Your task to perform on an android device: Search for "panasonic triple a" on amazon, select the first entry, add it to the cart, then select checkout. Image 0: 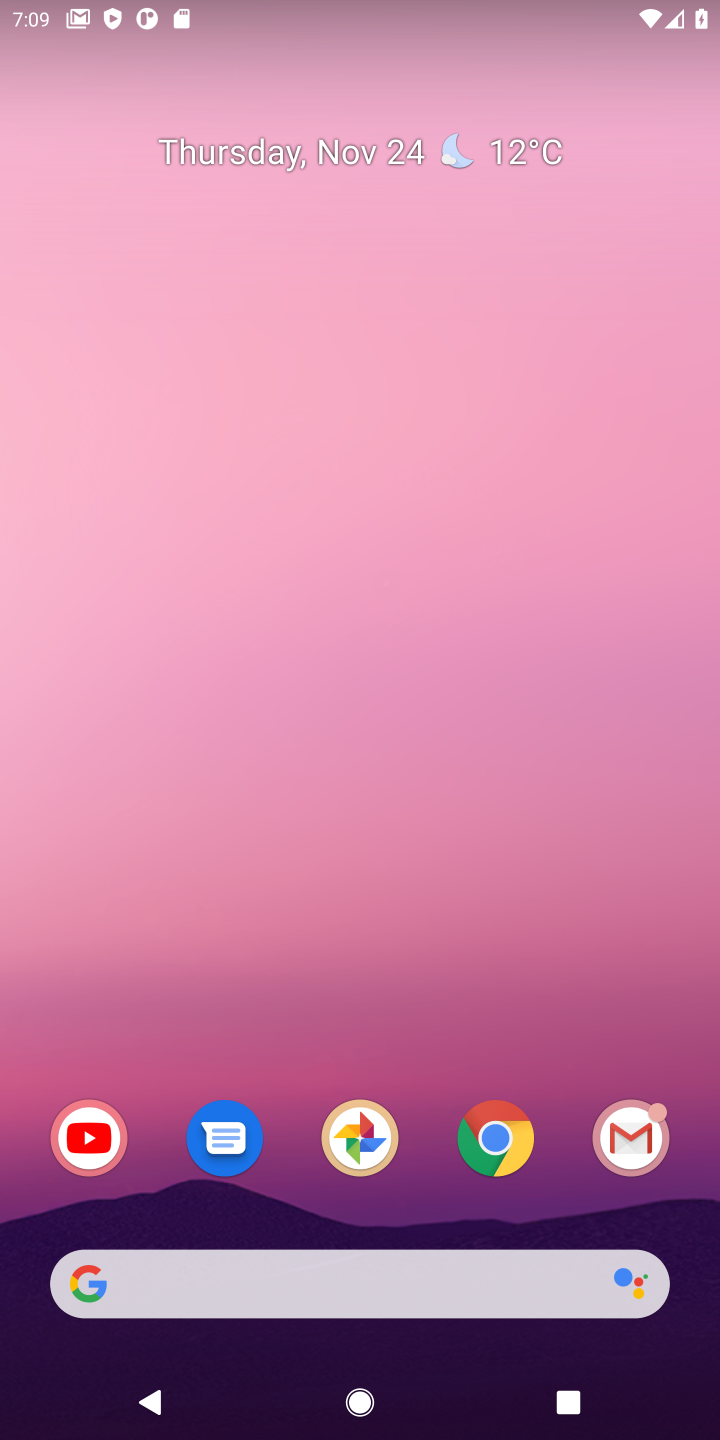
Step 0: click (500, 1118)
Your task to perform on an android device: Search for "panasonic triple a" on amazon, select the first entry, add it to the cart, then select checkout. Image 1: 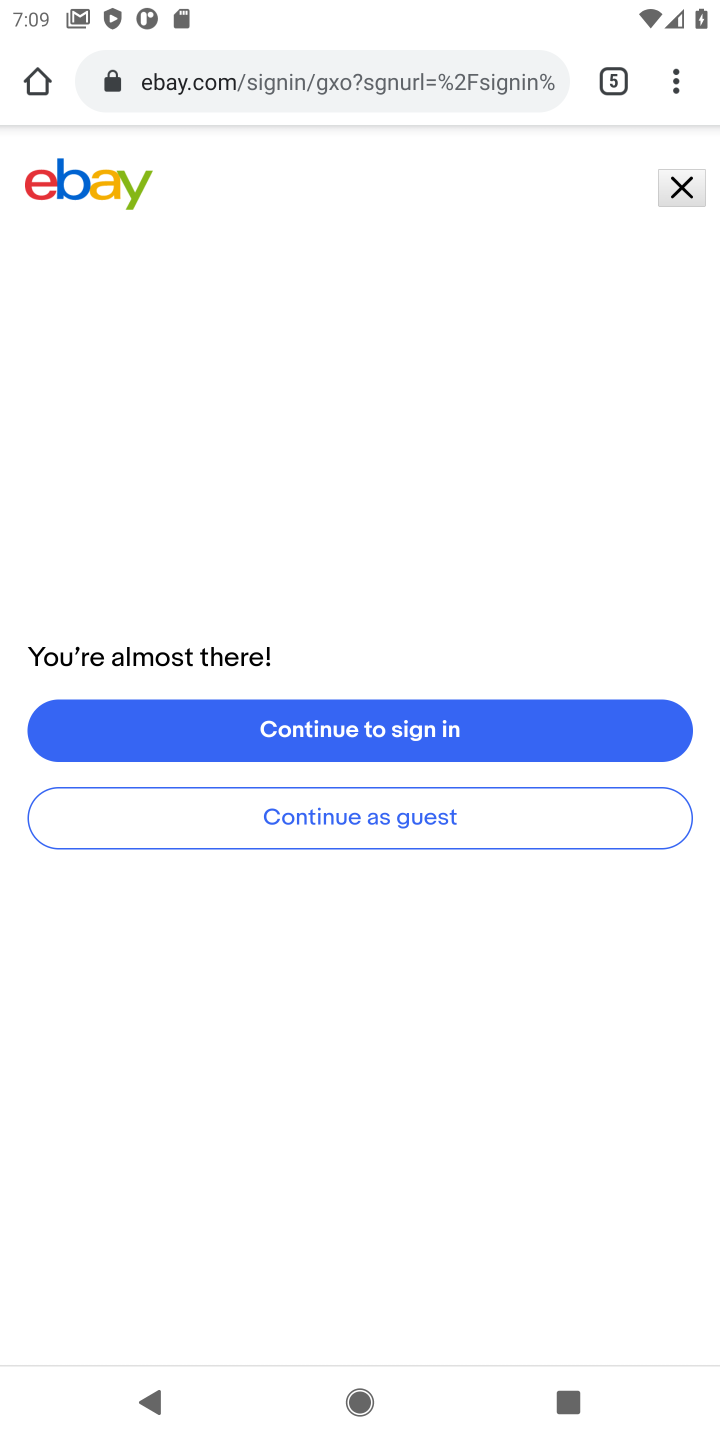
Step 1: click (600, 85)
Your task to perform on an android device: Search for "panasonic triple a" on amazon, select the first entry, add it to the cart, then select checkout. Image 2: 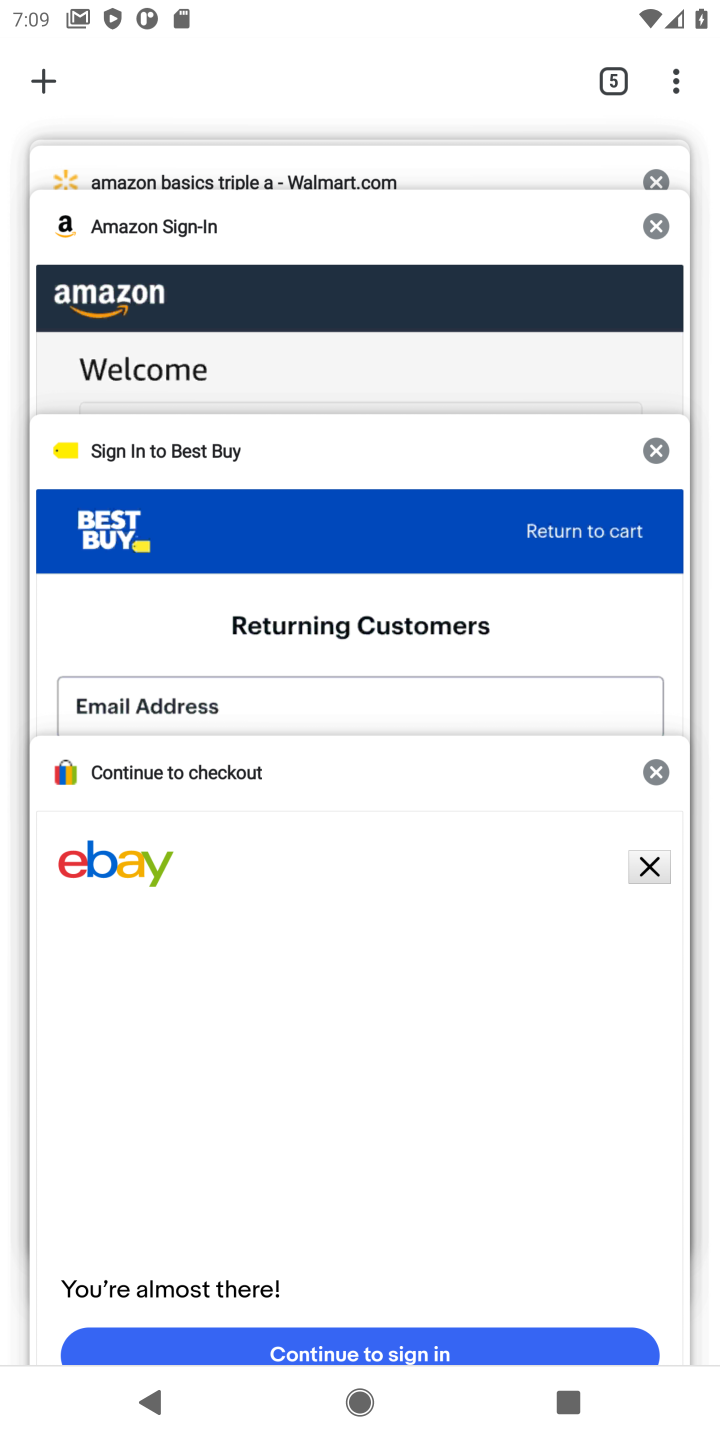
Step 2: click (338, 230)
Your task to perform on an android device: Search for "panasonic triple a" on amazon, select the first entry, add it to the cart, then select checkout. Image 3: 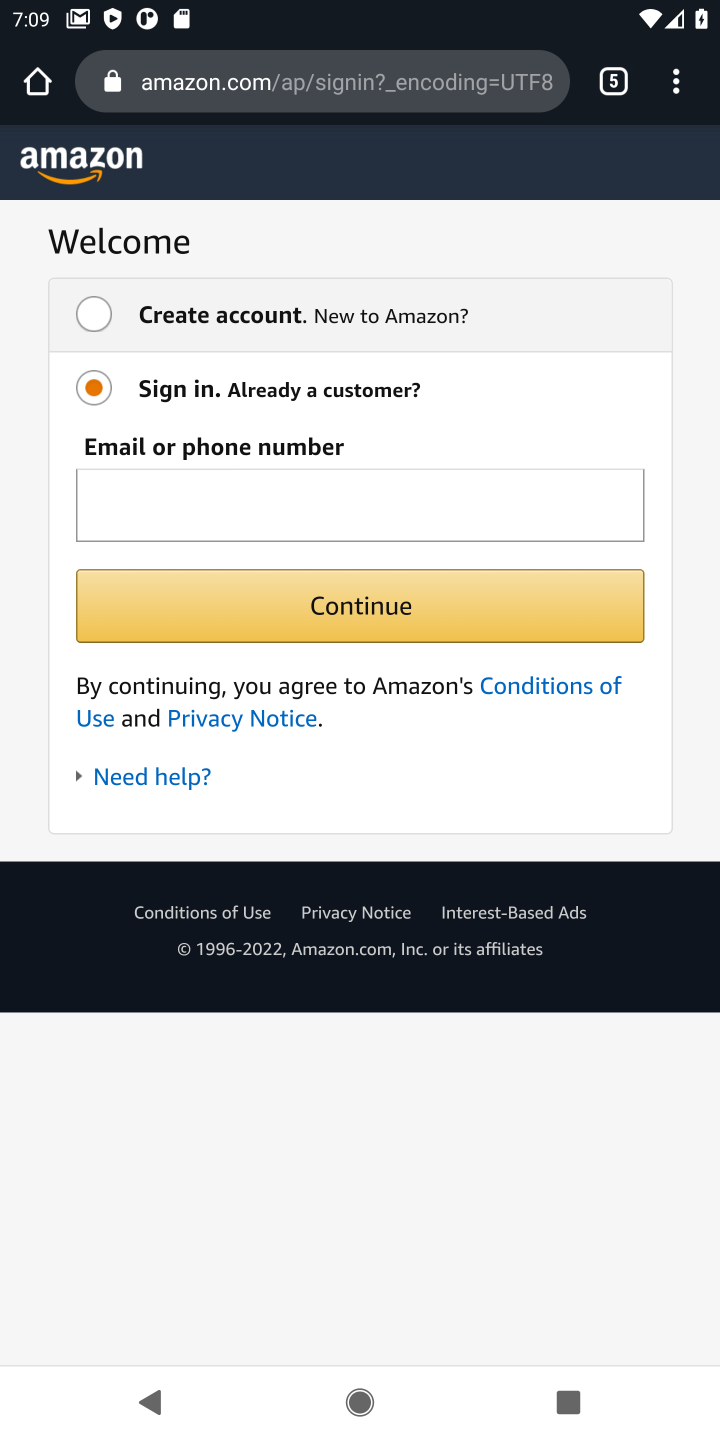
Step 3: press back button
Your task to perform on an android device: Search for "panasonic triple a" on amazon, select the first entry, add it to the cart, then select checkout. Image 4: 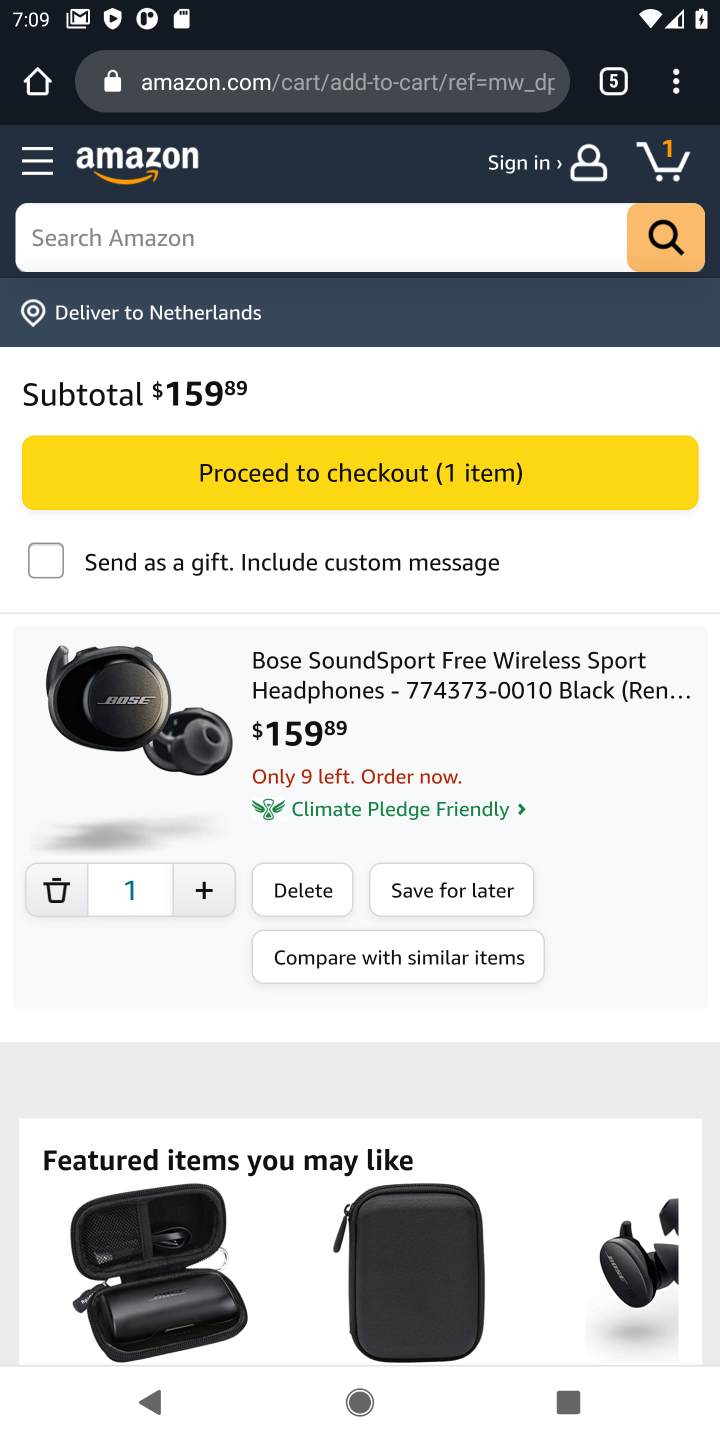
Step 4: click (289, 243)
Your task to perform on an android device: Search for "panasonic triple a" on amazon, select the first entry, add it to the cart, then select checkout. Image 5: 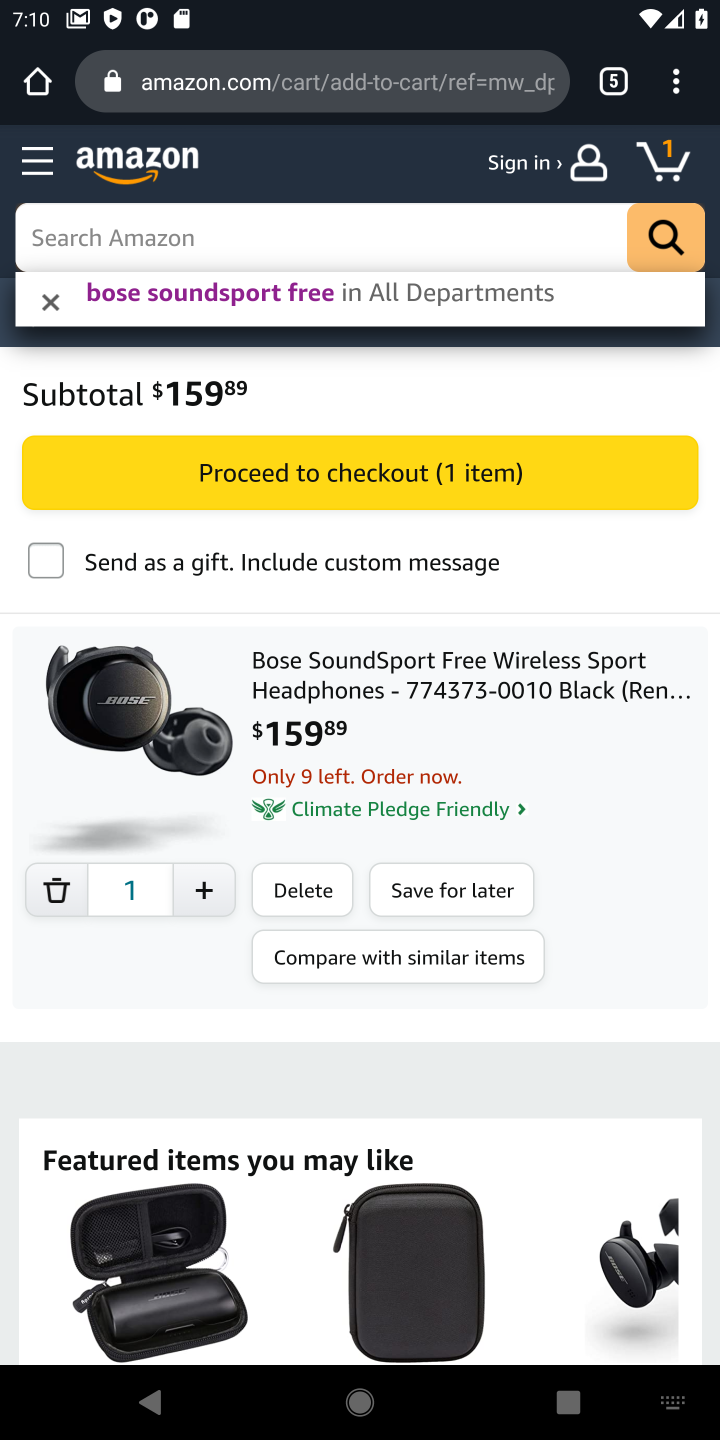
Step 5: click (227, 229)
Your task to perform on an android device: Search for "panasonic triple a" on amazon, select the first entry, add it to the cart, then select checkout. Image 6: 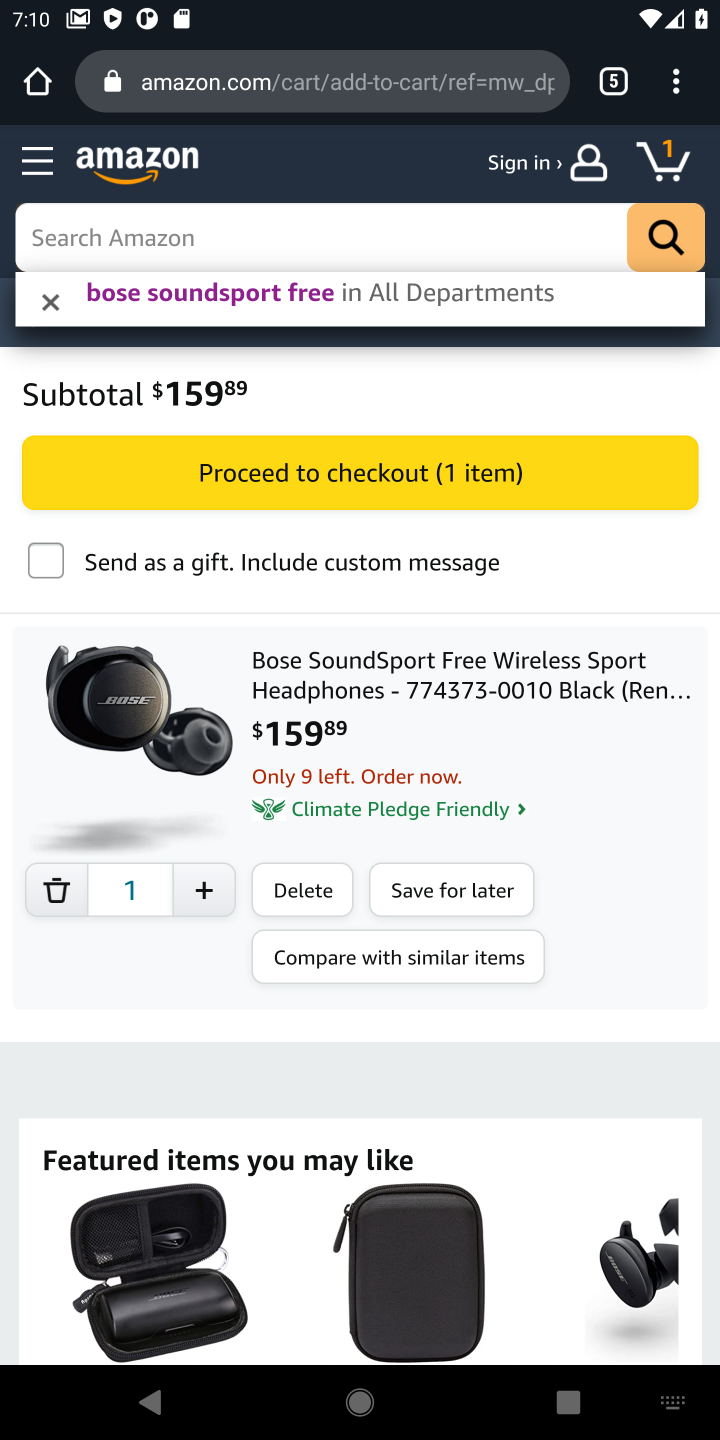
Step 6: type "panasonic triple a"
Your task to perform on an android device: Search for "panasonic triple a" on amazon, select the first entry, add it to the cart, then select checkout. Image 7: 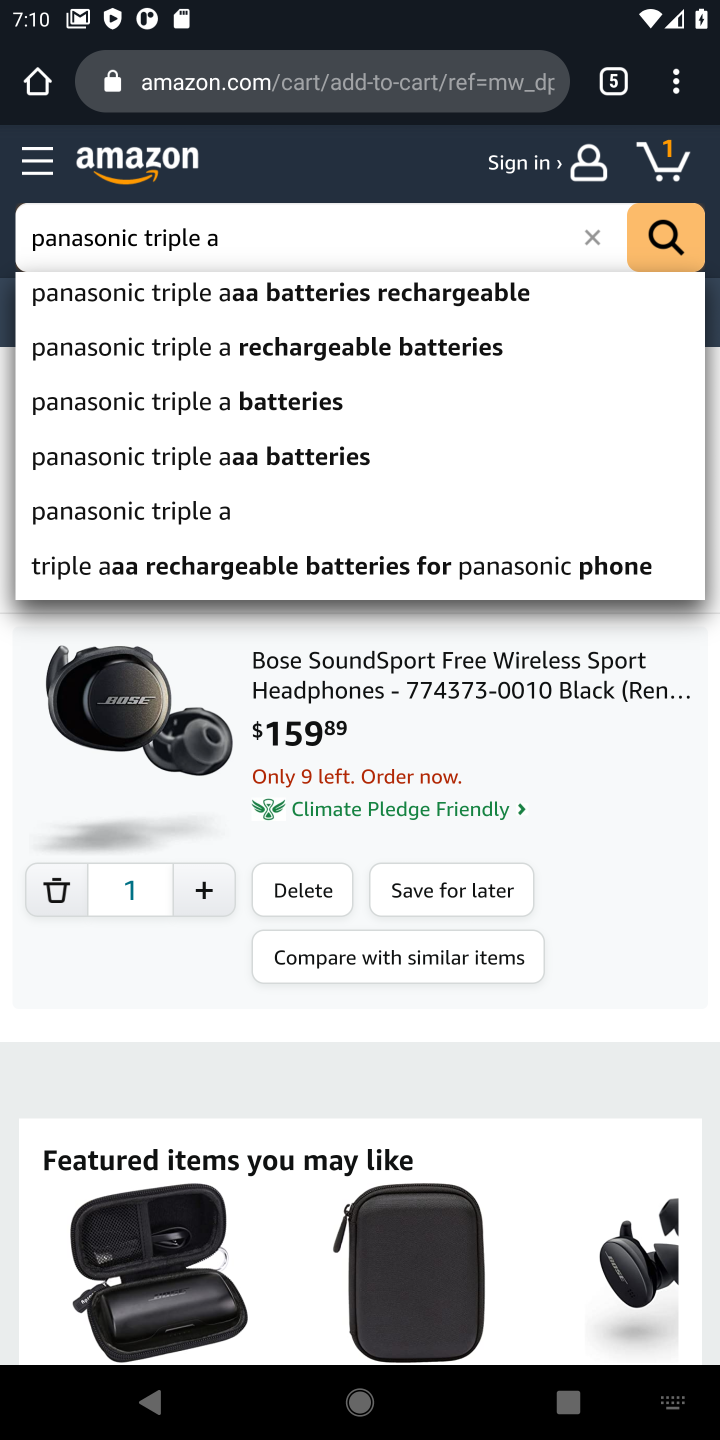
Step 7: click (280, 293)
Your task to perform on an android device: Search for "panasonic triple a" on amazon, select the first entry, add it to the cart, then select checkout. Image 8: 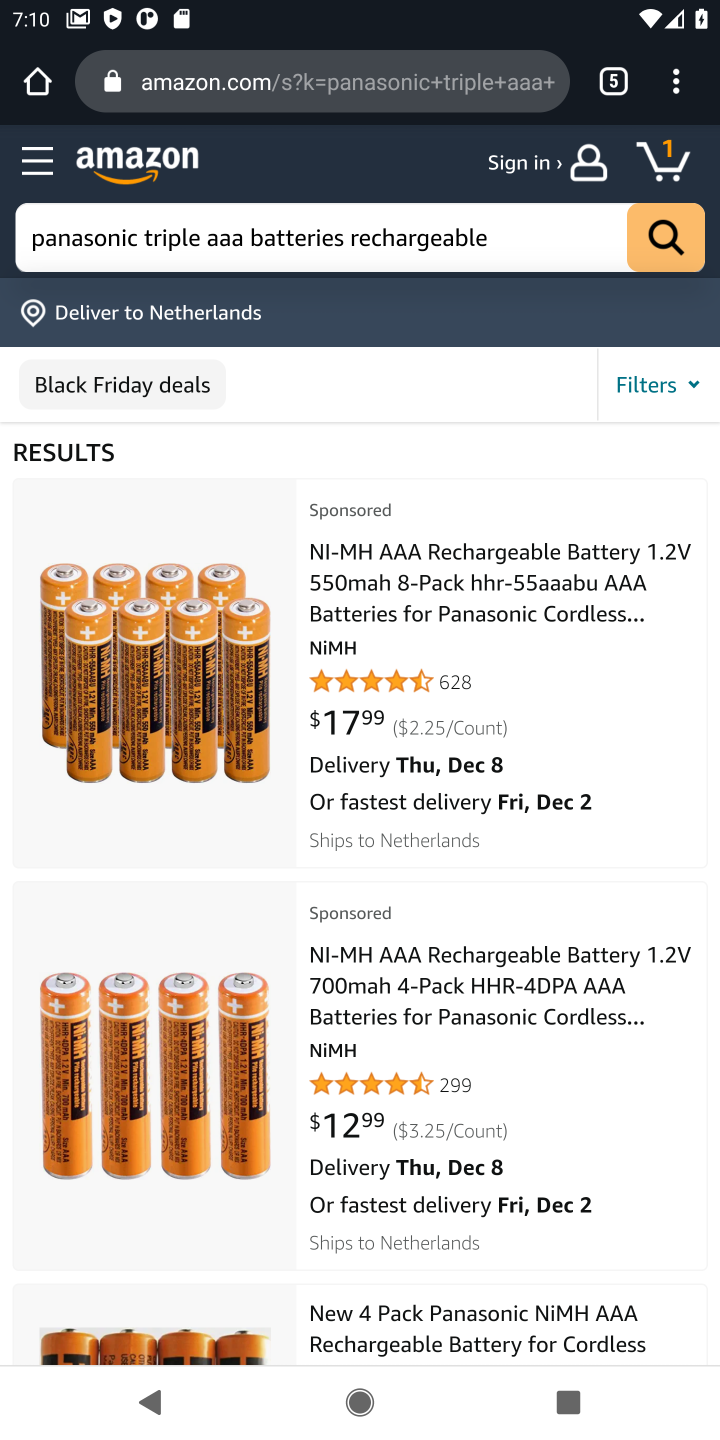
Step 8: click (171, 634)
Your task to perform on an android device: Search for "panasonic triple a" on amazon, select the first entry, add it to the cart, then select checkout. Image 9: 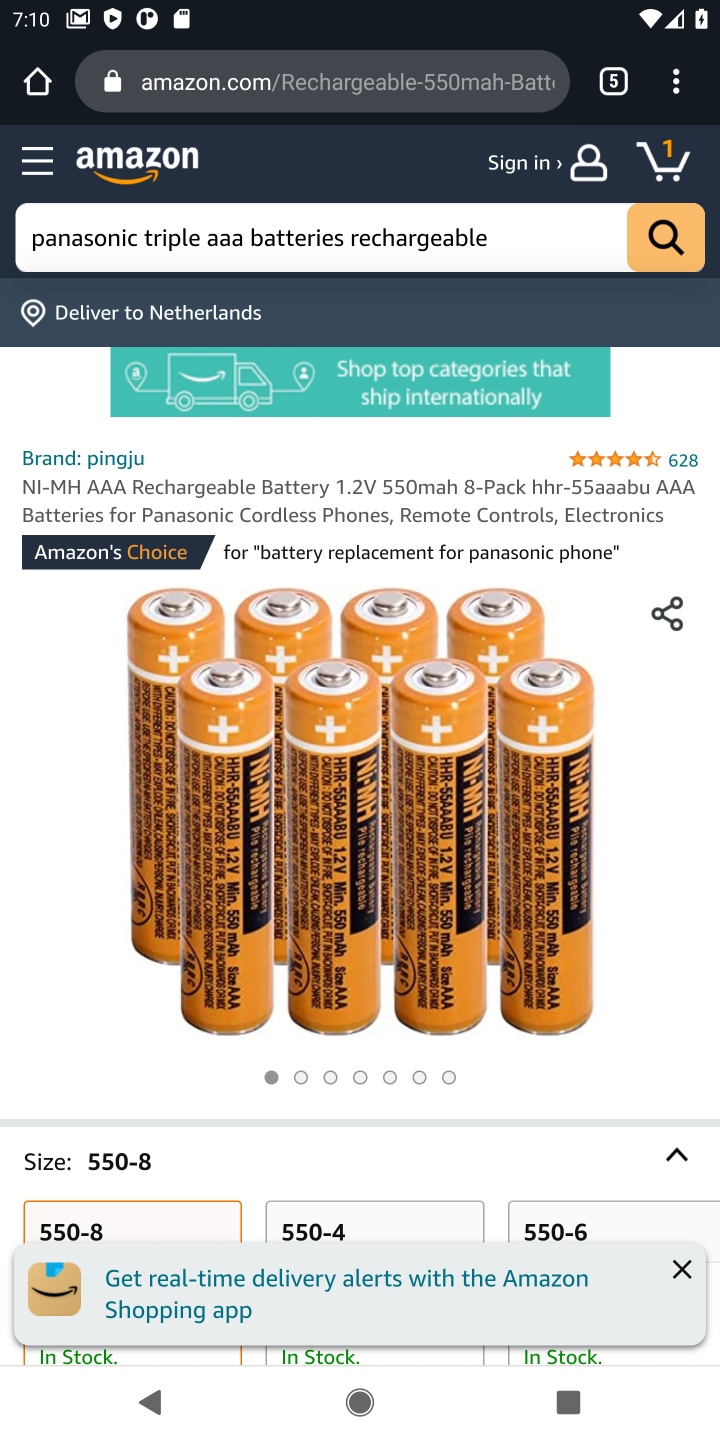
Step 9: drag from (298, 934) to (409, 359)
Your task to perform on an android device: Search for "panasonic triple a" on amazon, select the first entry, add it to the cart, then select checkout. Image 10: 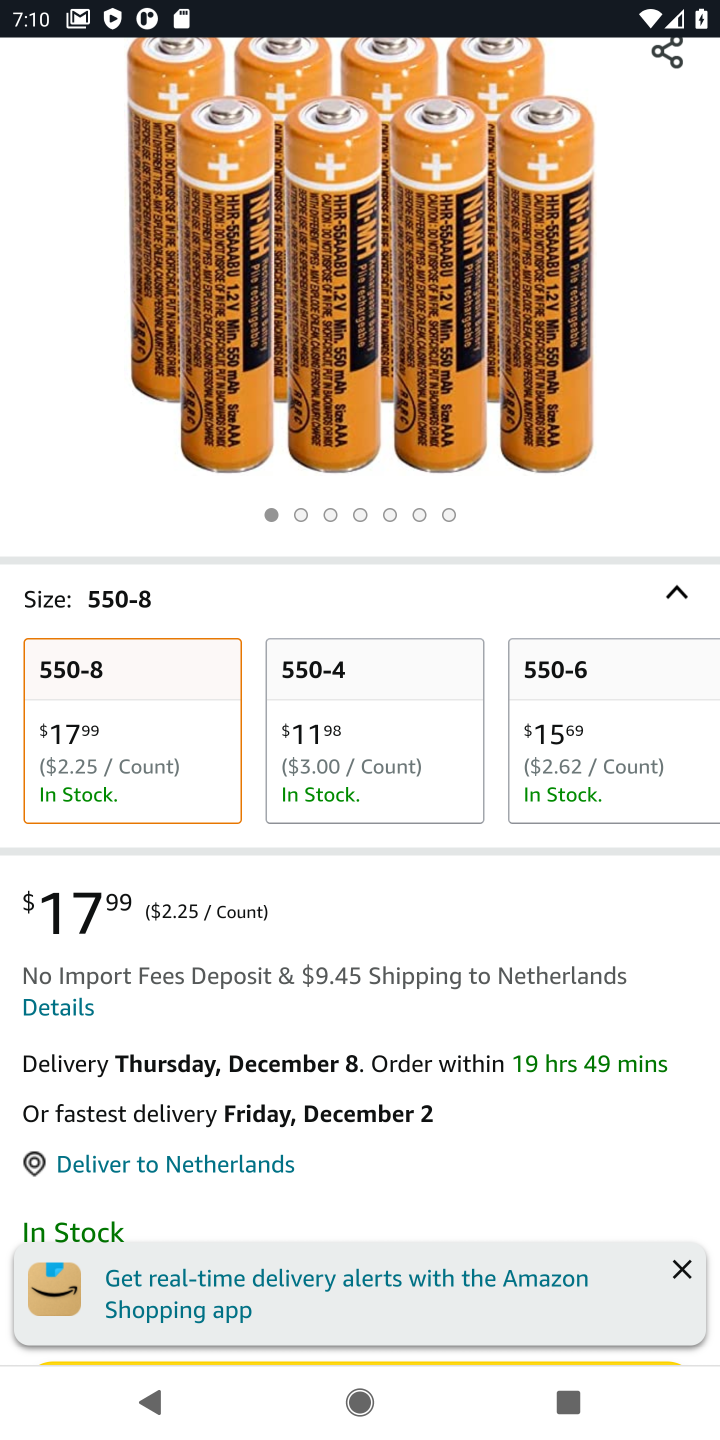
Step 10: drag from (262, 1122) to (358, 655)
Your task to perform on an android device: Search for "panasonic triple a" on amazon, select the first entry, add it to the cart, then select checkout. Image 11: 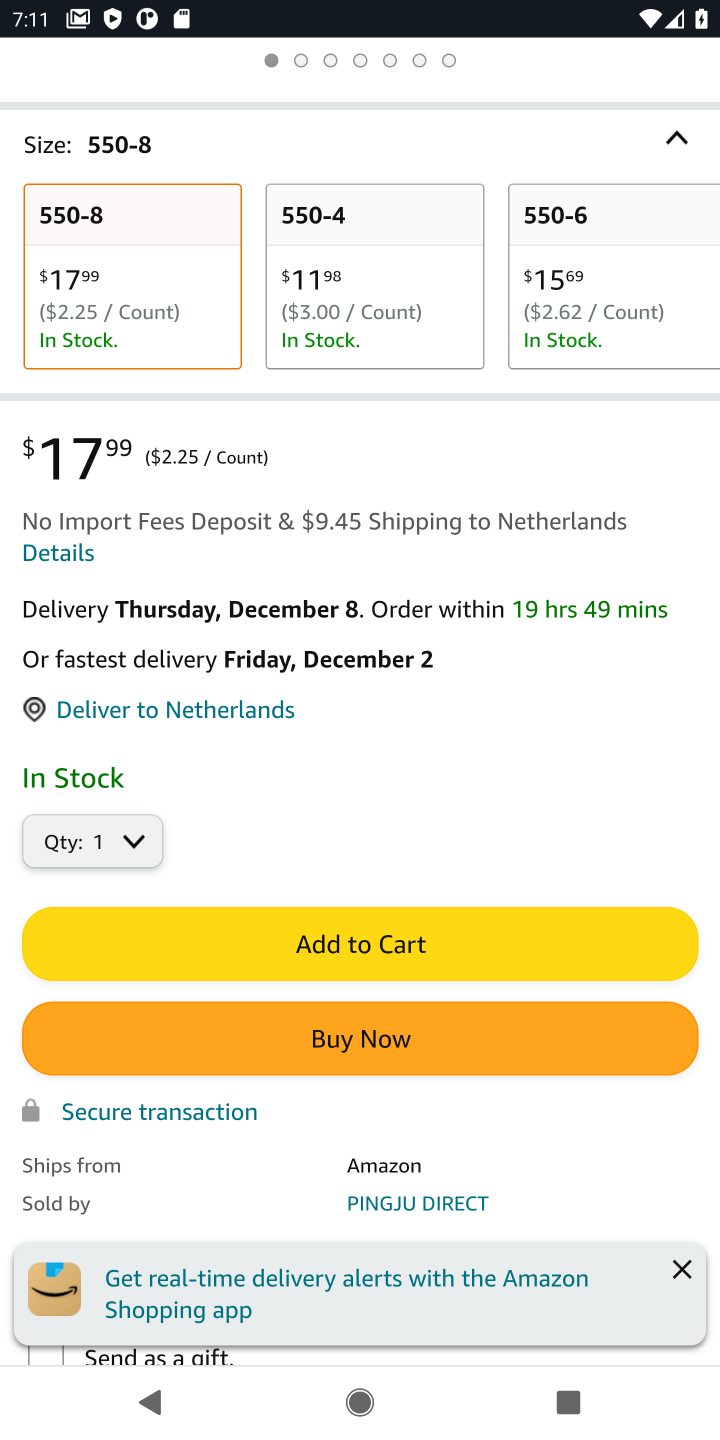
Step 11: click (458, 946)
Your task to perform on an android device: Search for "panasonic triple a" on amazon, select the first entry, add it to the cart, then select checkout. Image 12: 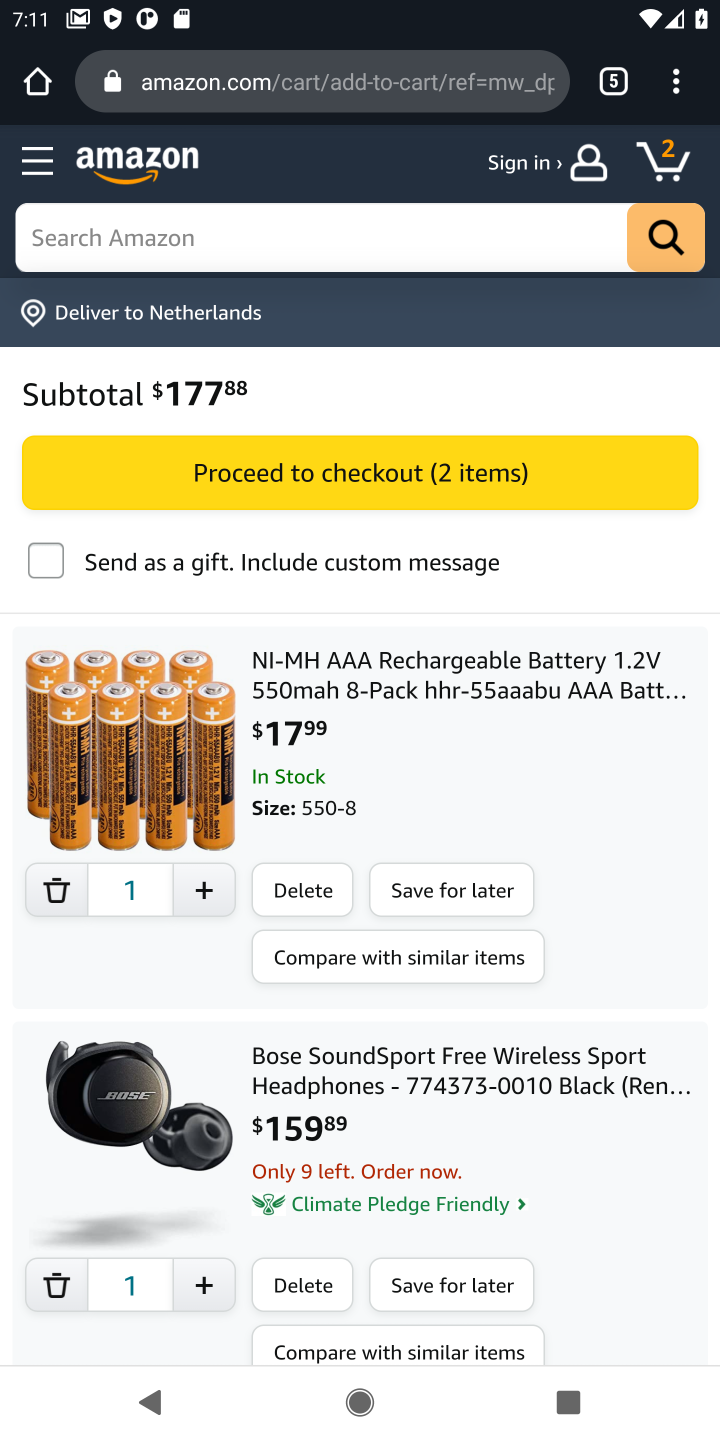
Step 12: click (409, 640)
Your task to perform on an android device: Search for "panasonic triple a" on amazon, select the first entry, add it to the cart, then select checkout. Image 13: 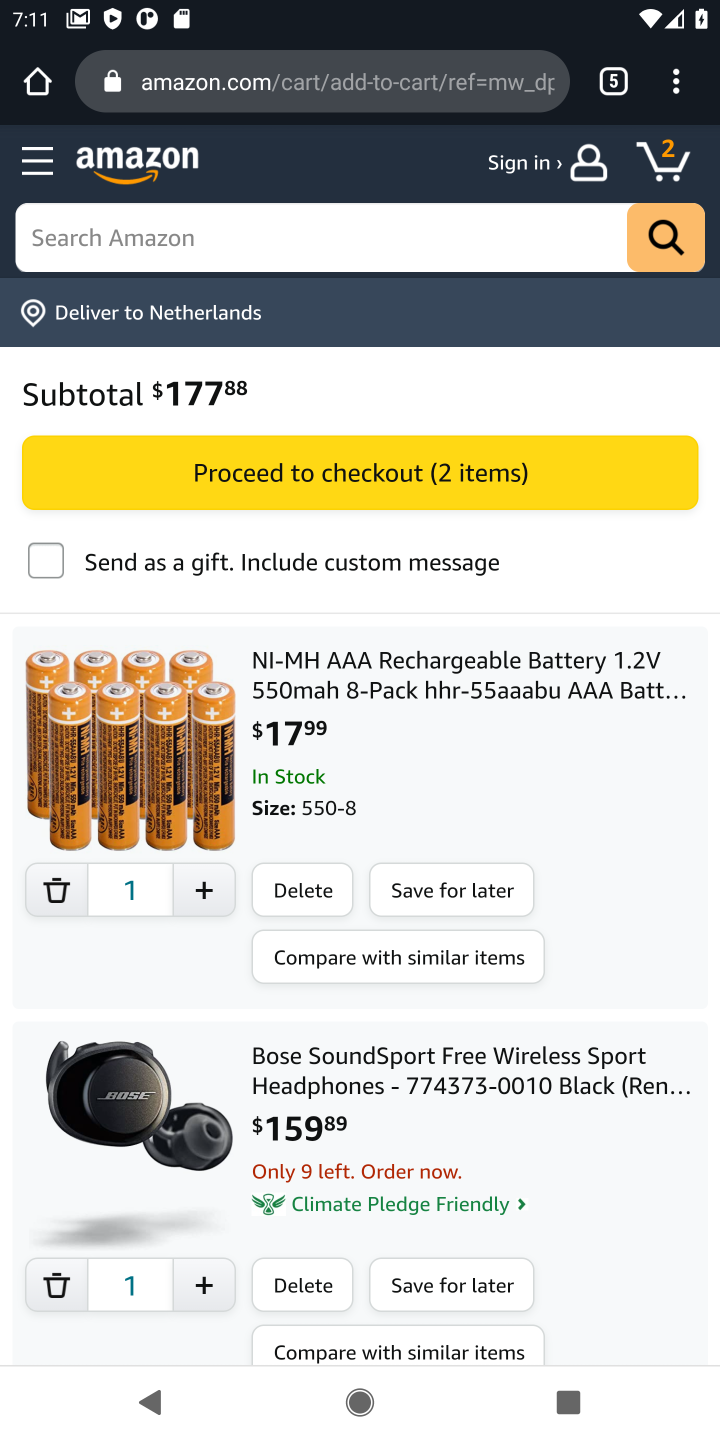
Step 13: click (418, 684)
Your task to perform on an android device: Search for "panasonic triple a" on amazon, select the first entry, add it to the cart, then select checkout. Image 14: 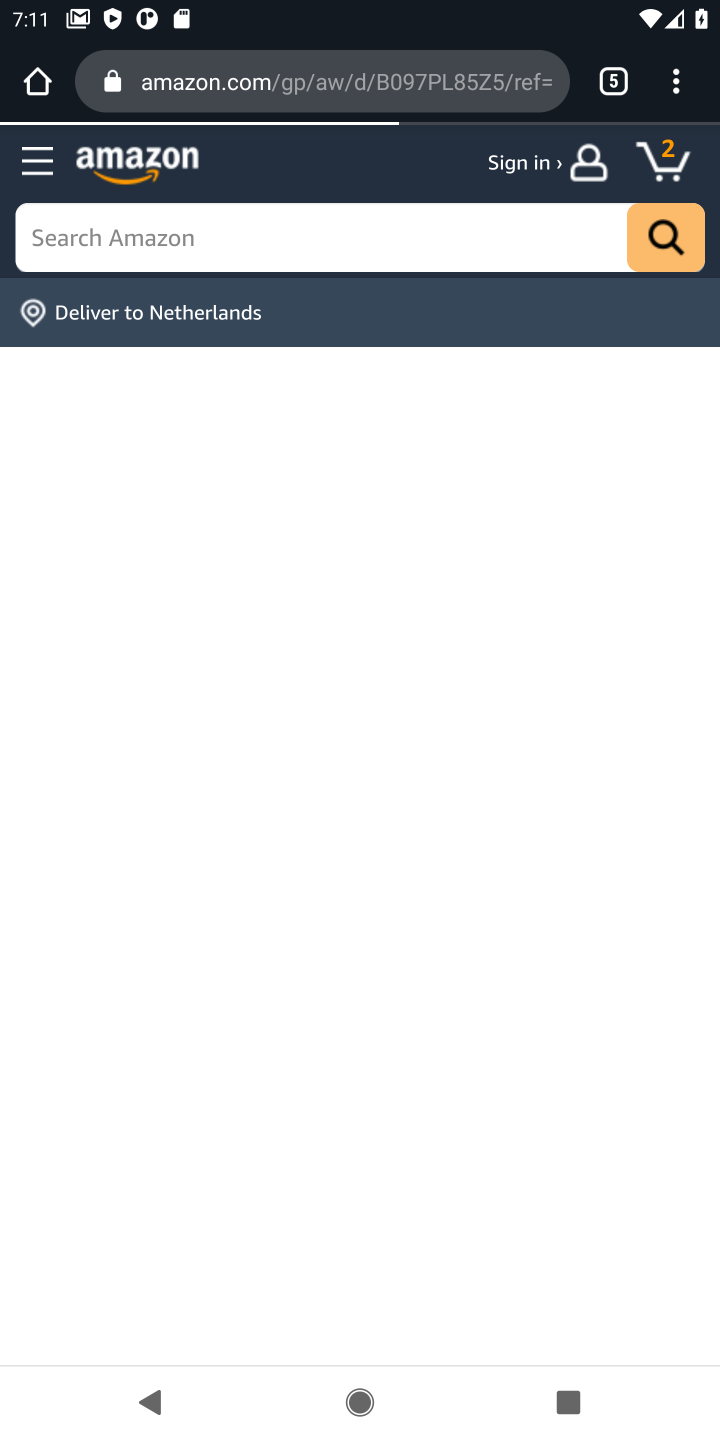
Step 14: drag from (328, 977) to (427, 547)
Your task to perform on an android device: Search for "panasonic triple a" on amazon, select the first entry, add it to the cart, then select checkout. Image 15: 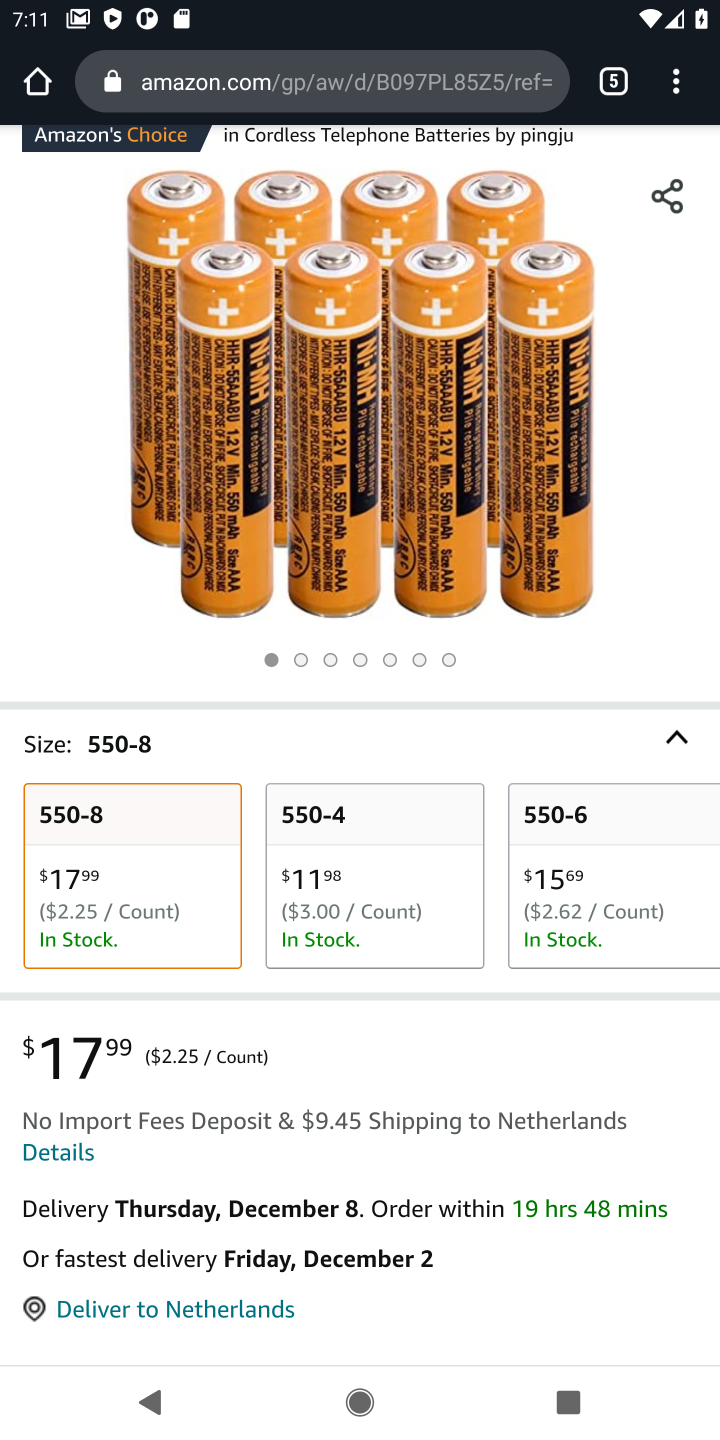
Step 15: drag from (375, 1200) to (543, 661)
Your task to perform on an android device: Search for "panasonic triple a" on amazon, select the first entry, add it to the cart, then select checkout. Image 16: 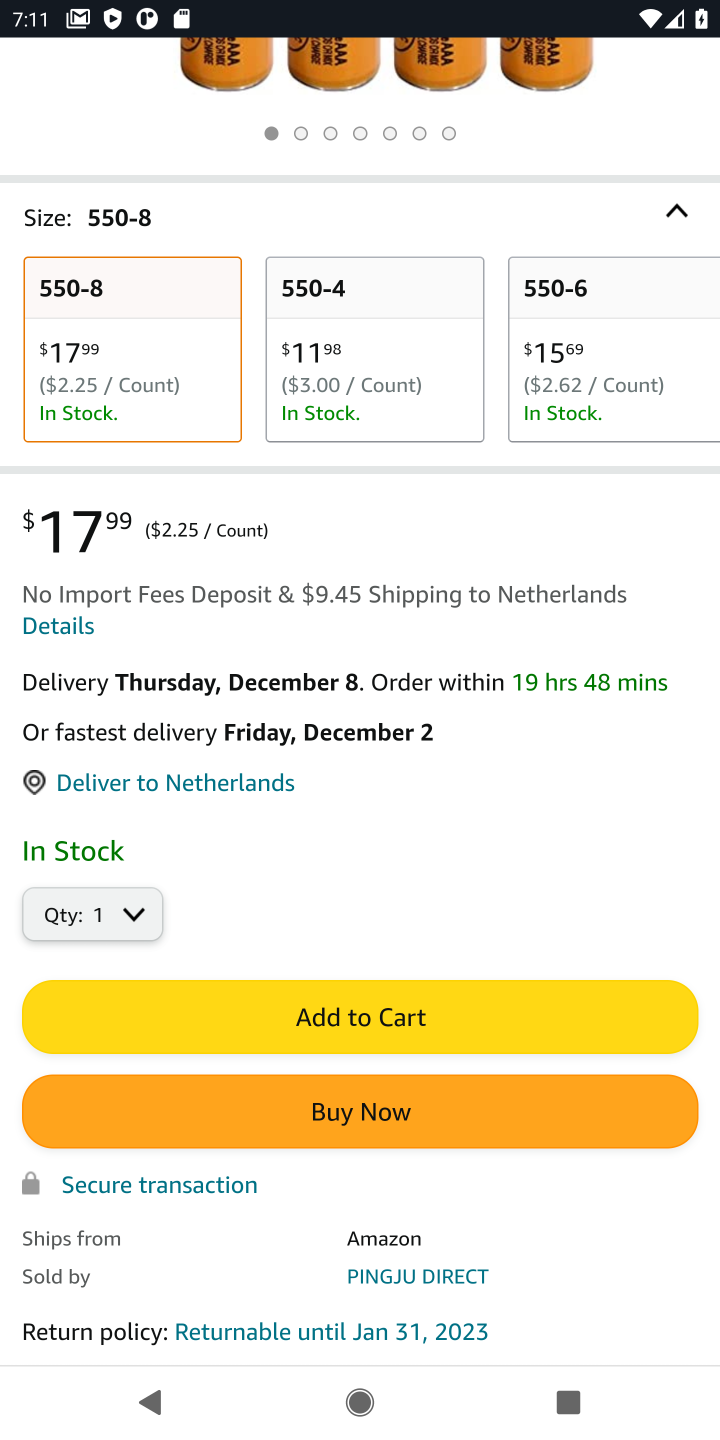
Step 16: click (361, 1022)
Your task to perform on an android device: Search for "panasonic triple a" on amazon, select the first entry, add it to the cart, then select checkout. Image 17: 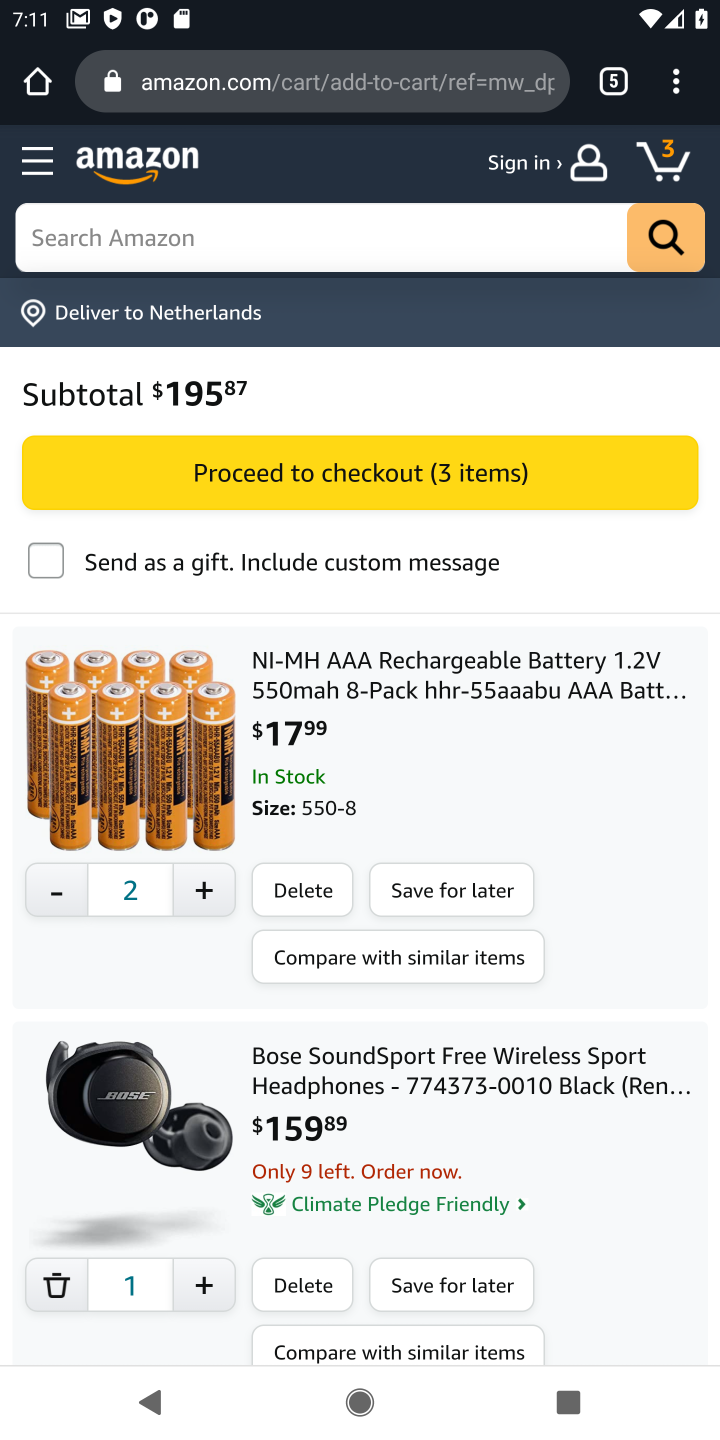
Step 17: click (52, 1303)
Your task to perform on an android device: Search for "panasonic triple a" on amazon, select the first entry, add it to the cart, then select checkout. Image 18: 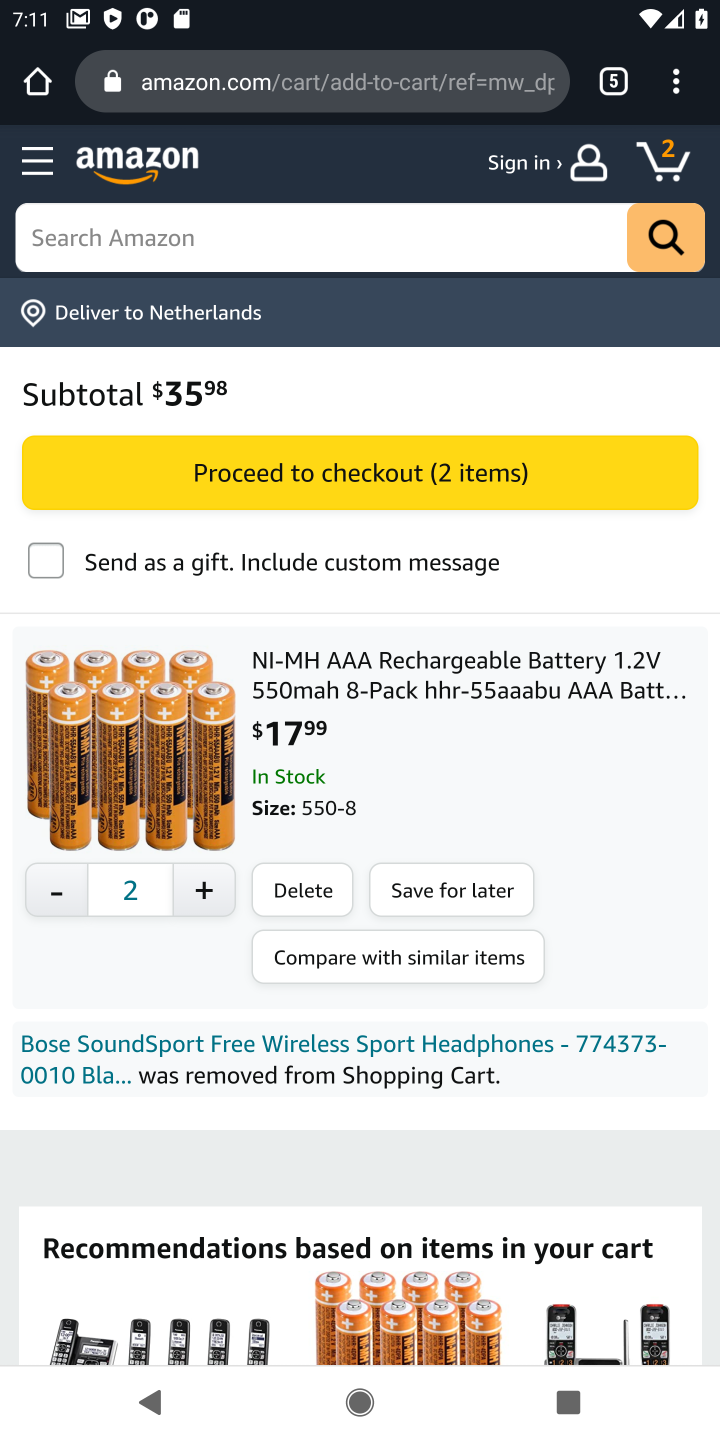
Step 18: click (432, 471)
Your task to perform on an android device: Search for "panasonic triple a" on amazon, select the first entry, add it to the cart, then select checkout. Image 19: 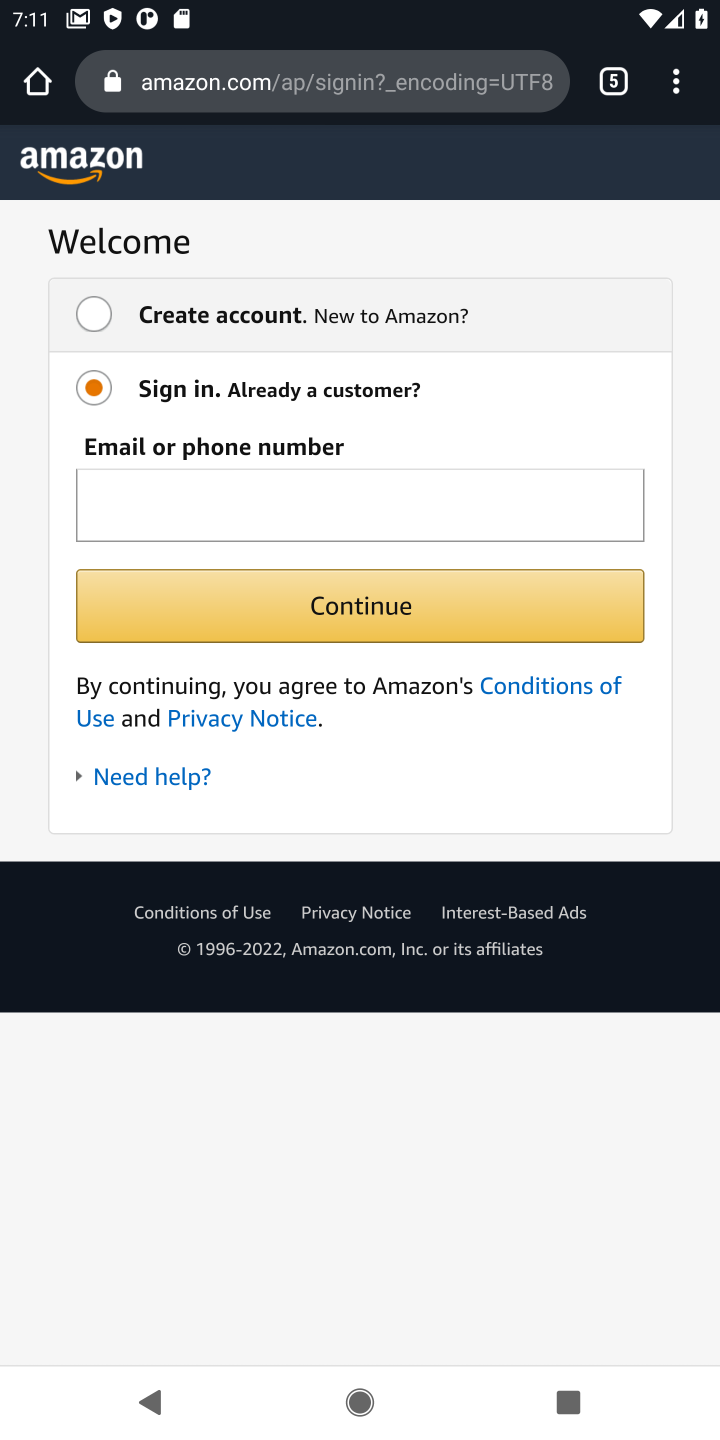
Step 19: task complete